Your task to perform on an android device: turn on sleep mode Image 0: 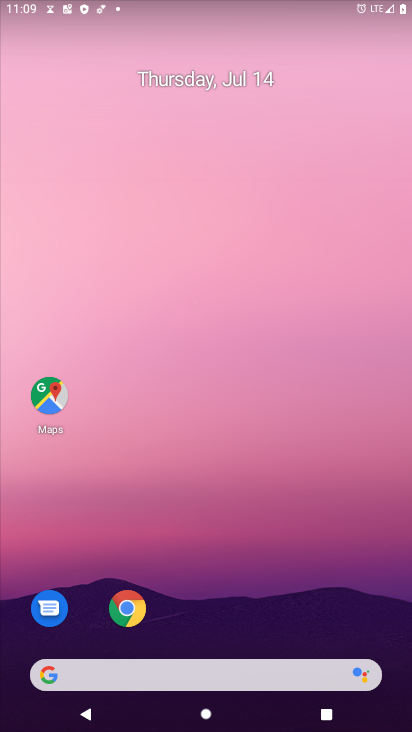
Step 0: drag from (225, 700) to (223, 209)
Your task to perform on an android device: turn on sleep mode Image 1: 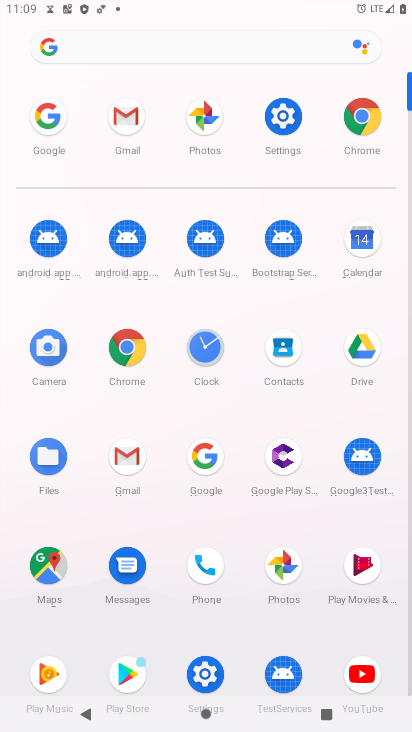
Step 1: click (286, 109)
Your task to perform on an android device: turn on sleep mode Image 2: 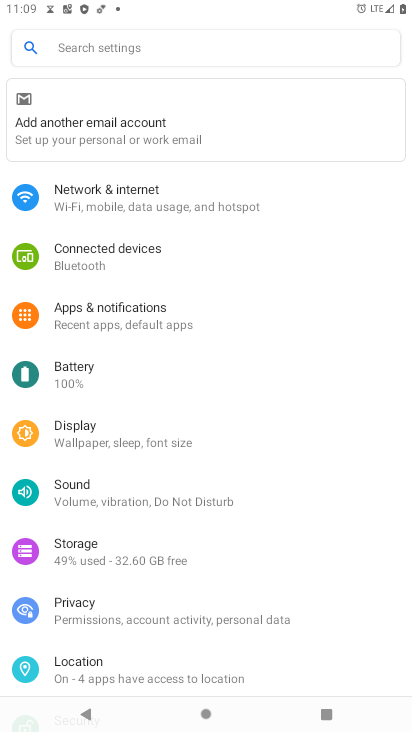
Step 2: task complete